Your task to perform on an android device: change your default location settings in chrome Image 0: 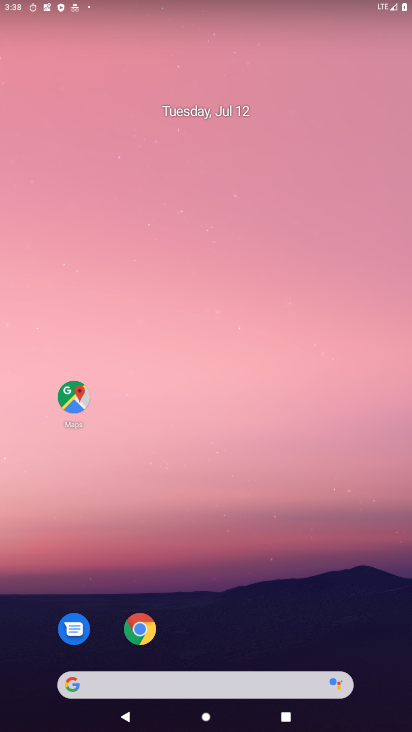
Step 0: drag from (342, 632) to (384, 528)
Your task to perform on an android device: change your default location settings in chrome Image 1: 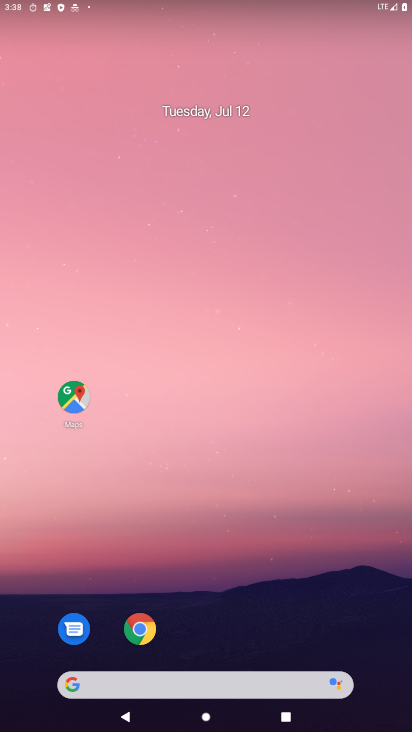
Step 1: click (126, 430)
Your task to perform on an android device: change your default location settings in chrome Image 2: 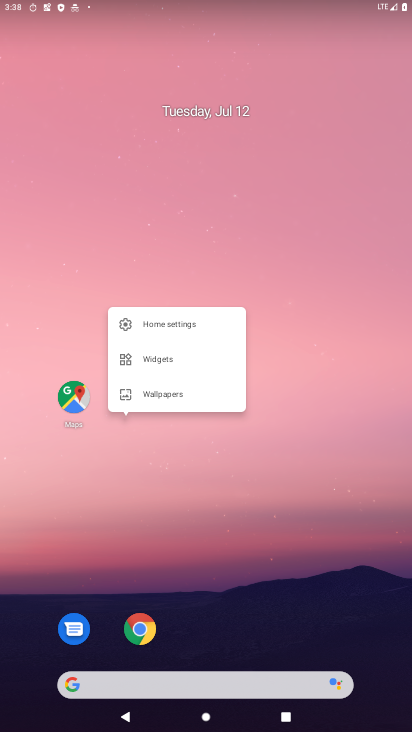
Step 2: click (155, 625)
Your task to perform on an android device: change your default location settings in chrome Image 3: 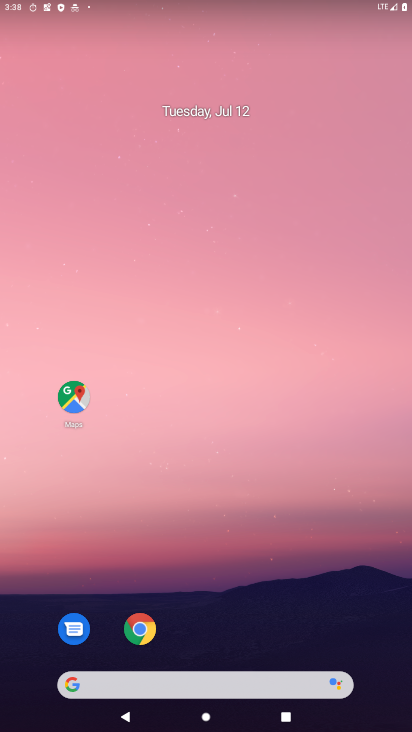
Step 3: click (136, 631)
Your task to perform on an android device: change your default location settings in chrome Image 4: 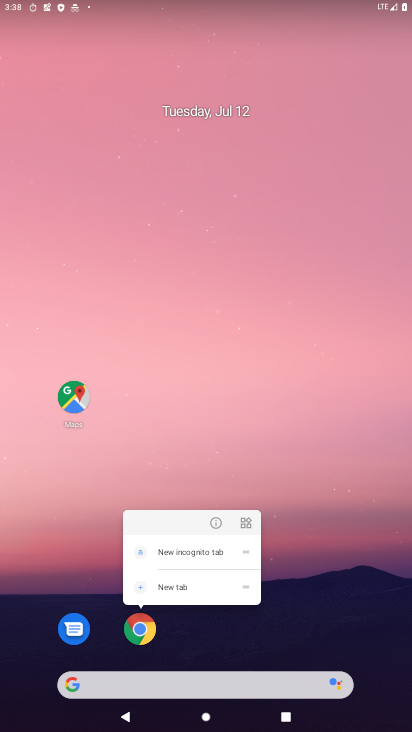
Step 4: click (136, 631)
Your task to perform on an android device: change your default location settings in chrome Image 5: 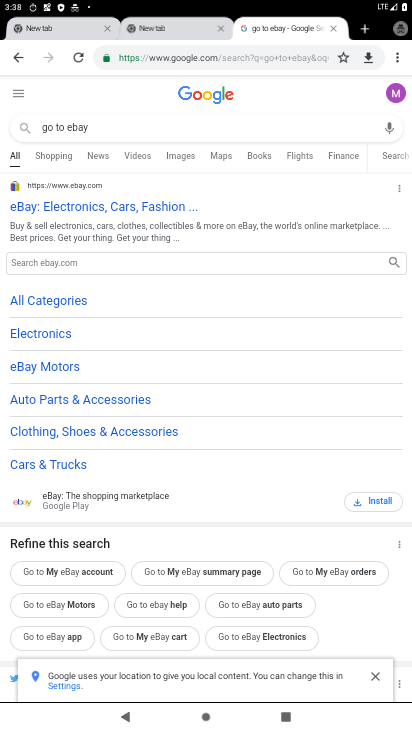
Step 5: drag from (396, 53) to (300, 350)
Your task to perform on an android device: change your default location settings in chrome Image 6: 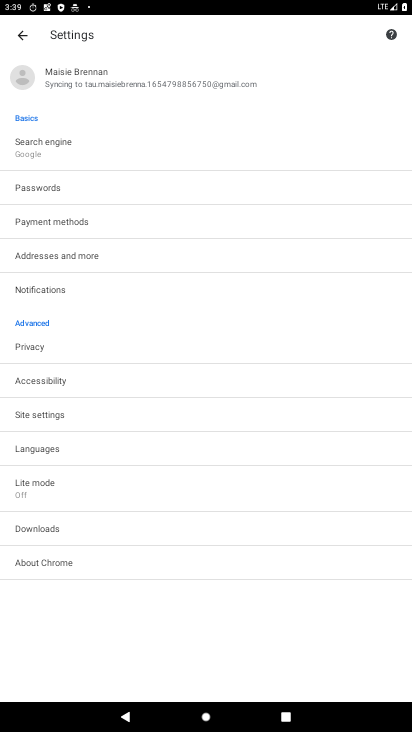
Step 6: click (62, 415)
Your task to perform on an android device: change your default location settings in chrome Image 7: 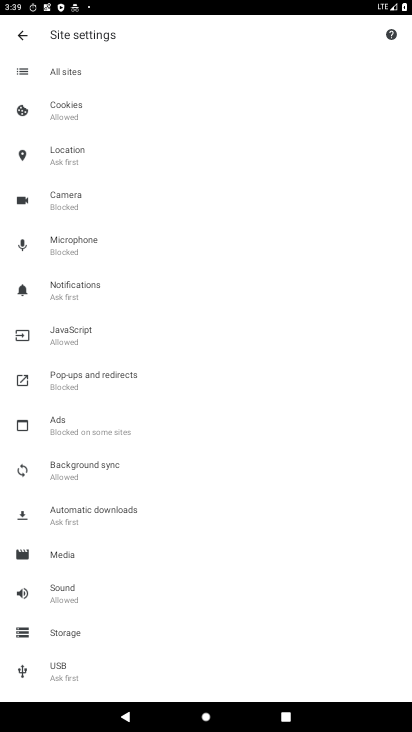
Step 7: click (71, 153)
Your task to perform on an android device: change your default location settings in chrome Image 8: 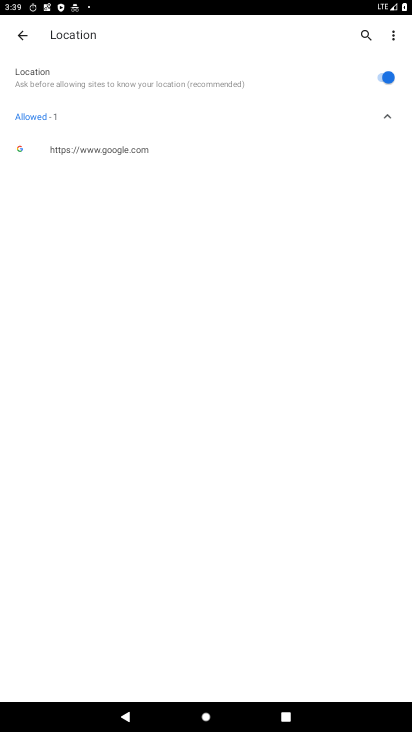
Step 8: task complete